Your task to perform on an android device: delete the emails in spam in the gmail app Image 0: 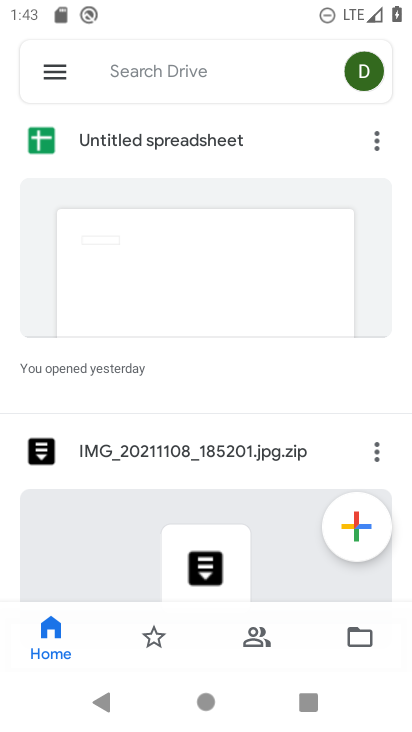
Step 0: press home button
Your task to perform on an android device: delete the emails in spam in the gmail app Image 1: 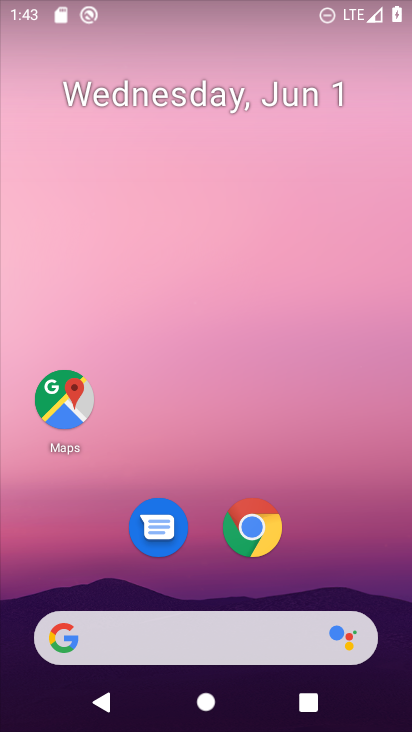
Step 1: drag from (161, 717) to (253, 3)
Your task to perform on an android device: delete the emails in spam in the gmail app Image 2: 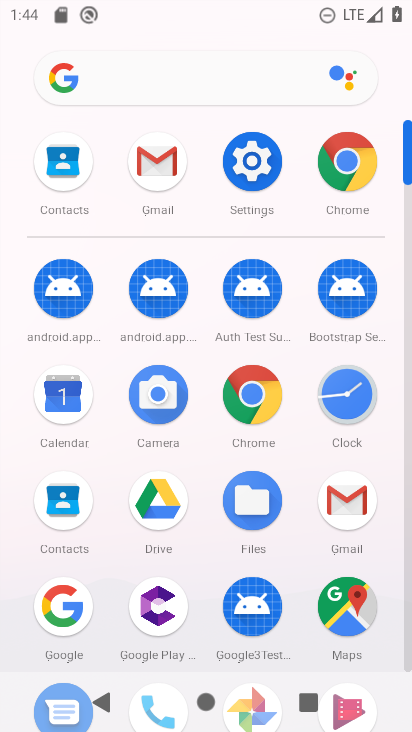
Step 2: click (344, 501)
Your task to perform on an android device: delete the emails in spam in the gmail app Image 3: 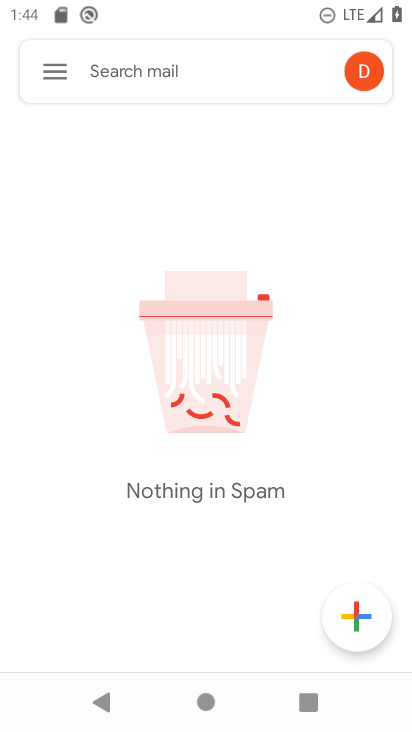
Step 3: click (60, 69)
Your task to perform on an android device: delete the emails in spam in the gmail app Image 4: 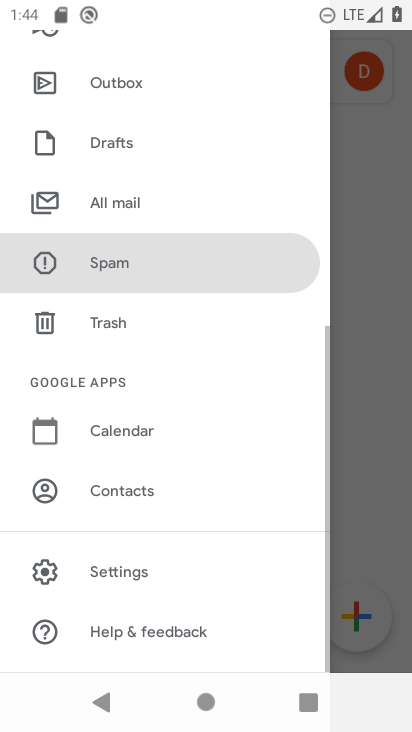
Step 4: click (121, 270)
Your task to perform on an android device: delete the emails in spam in the gmail app Image 5: 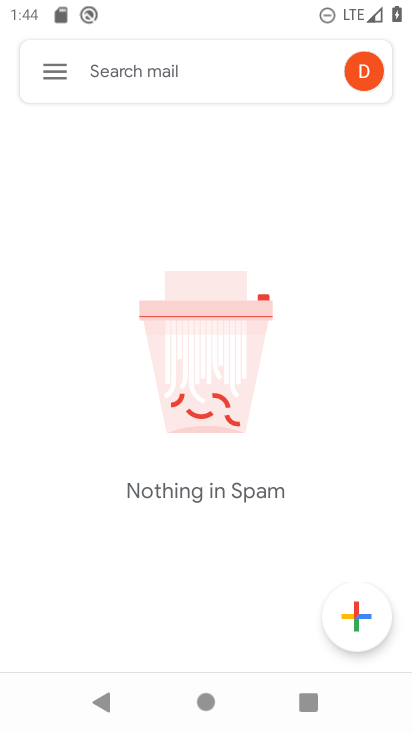
Step 5: task complete